Your task to perform on an android device: delete location history Image 0: 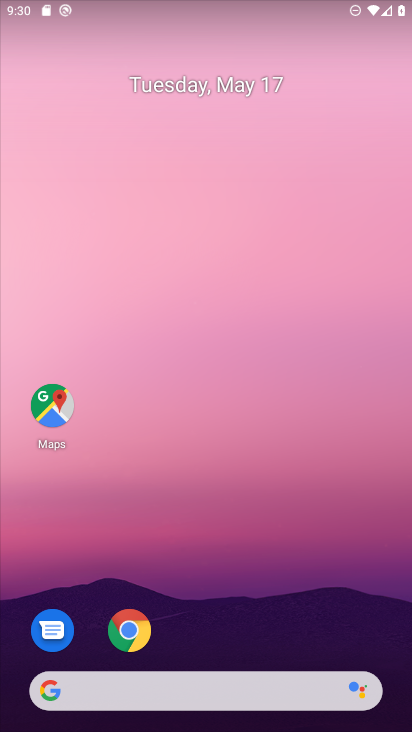
Step 0: drag from (322, 598) to (325, 127)
Your task to perform on an android device: delete location history Image 1: 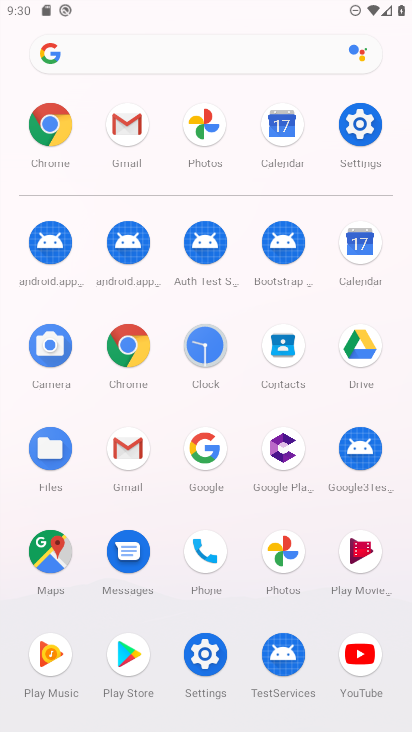
Step 1: click (58, 558)
Your task to perform on an android device: delete location history Image 2: 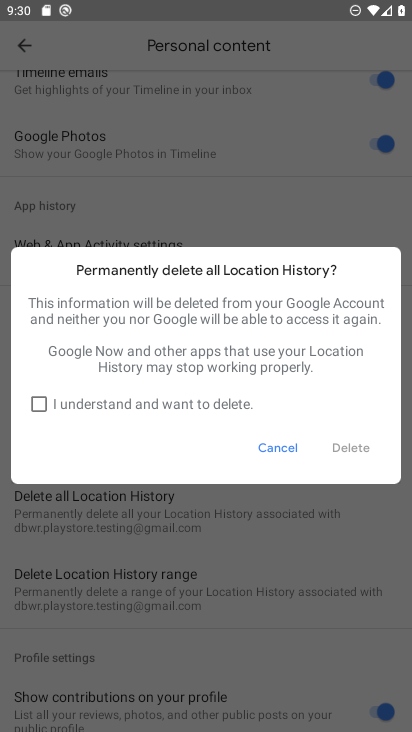
Step 2: click (36, 397)
Your task to perform on an android device: delete location history Image 3: 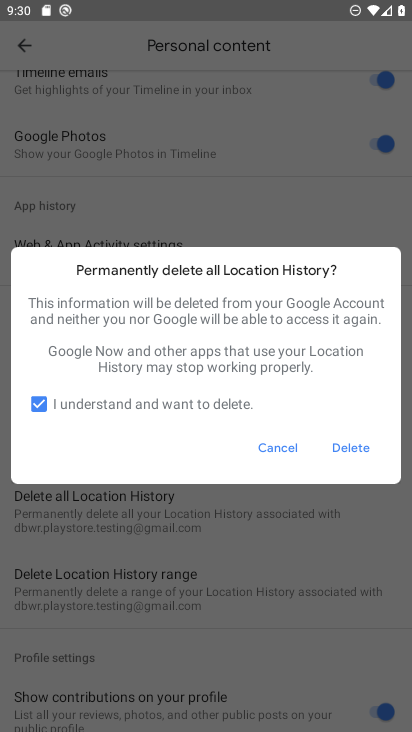
Step 3: click (362, 446)
Your task to perform on an android device: delete location history Image 4: 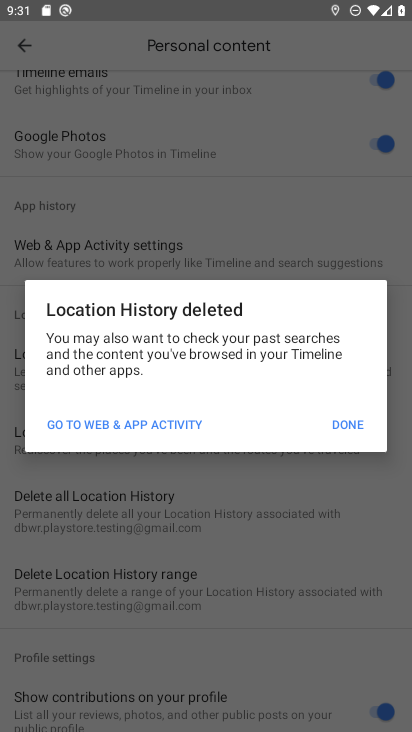
Step 4: task complete